Your task to perform on an android device: Open a new window in the chrome app Image 0: 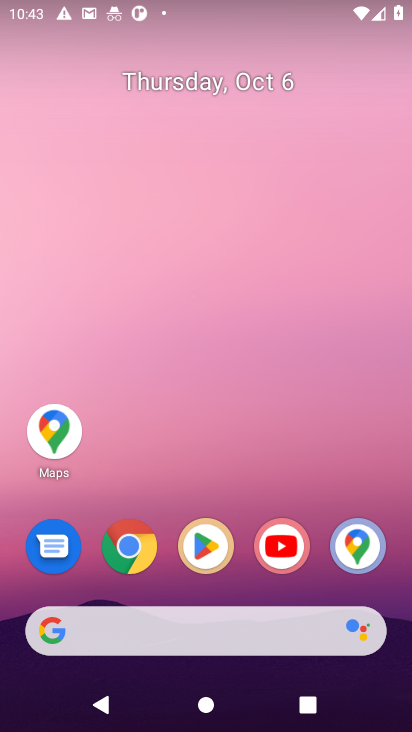
Step 0: click (125, 545)
Your task to perform on an android device: Open a new window in the chrome app Image 1: 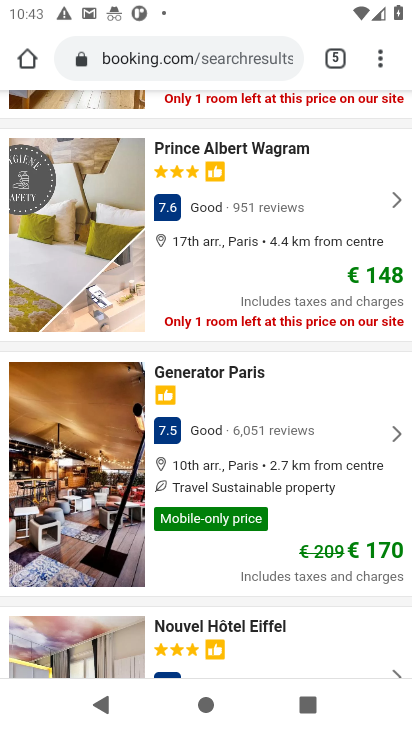
Step 1: click (227, 43)
Your task to perform on an android device: Open a new window in the chrome app Image 2: 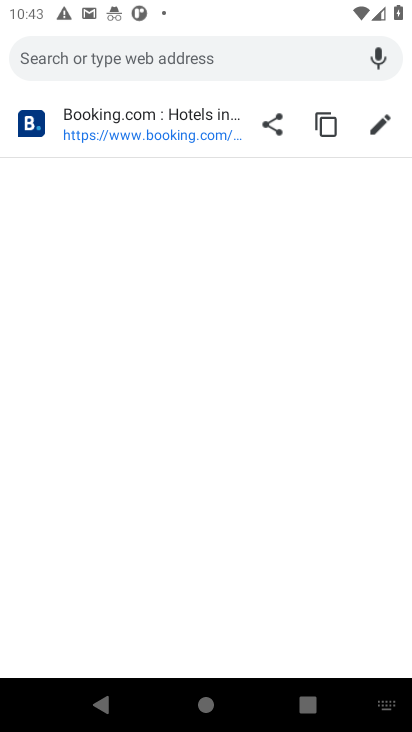
Step 2: press back button
Your task to perform on an android device: Open a new window in the chrome app Image 3: 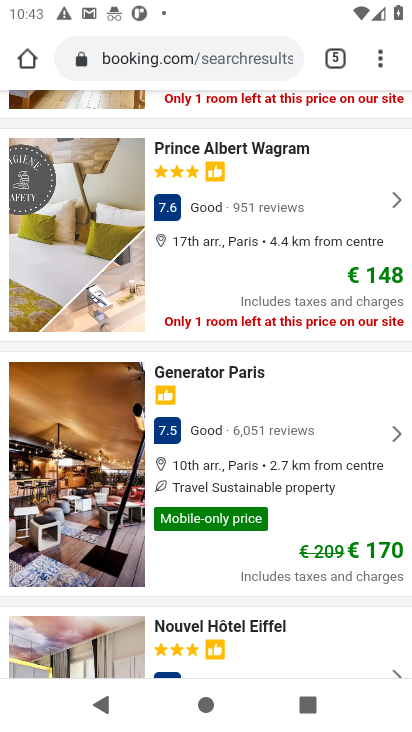
Step 3: click (378, 64)
Your task to perform on an android device: Open a new window in the chrome app Image 4: 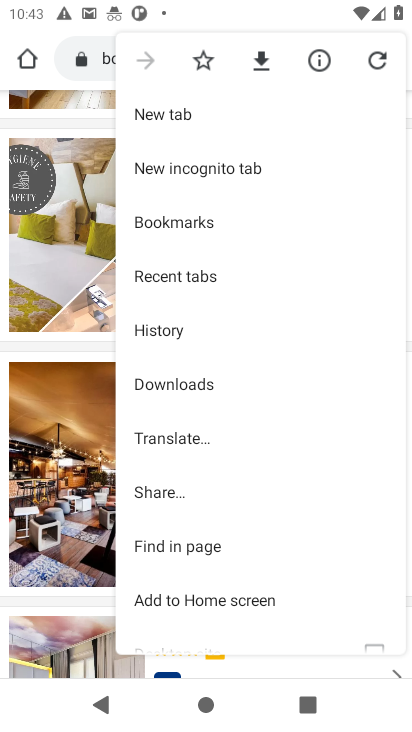
Step 4: click (156, 108)
Your task to perform on an android device: Open a new window in the chrome app Image 5: 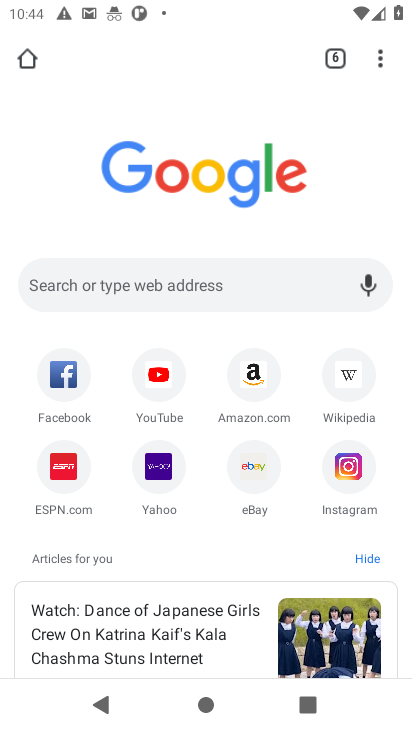
Step 5: task complete